Your task to perform on an android device: turn off smart reply in the gmail app Image 0: 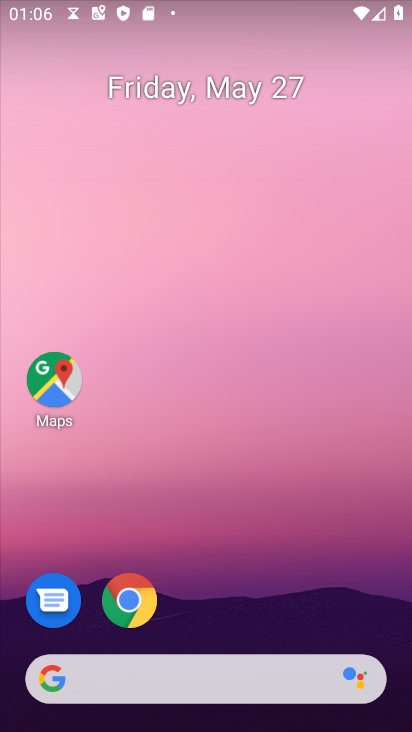
Step 0: drag from (285, 581) to (304, 245)
Your task to perform on an android device: turn off smart reply in the gmail app Image 1: 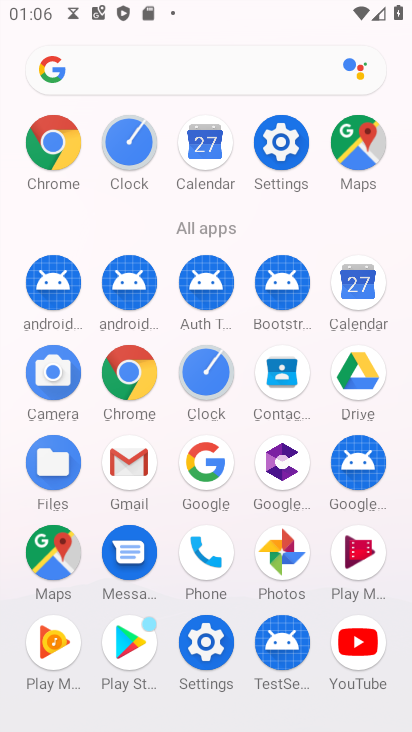
Step 1: click (143, 467)
Your task to perform on an android device: turn off smart reply in the gmail app Image 2: 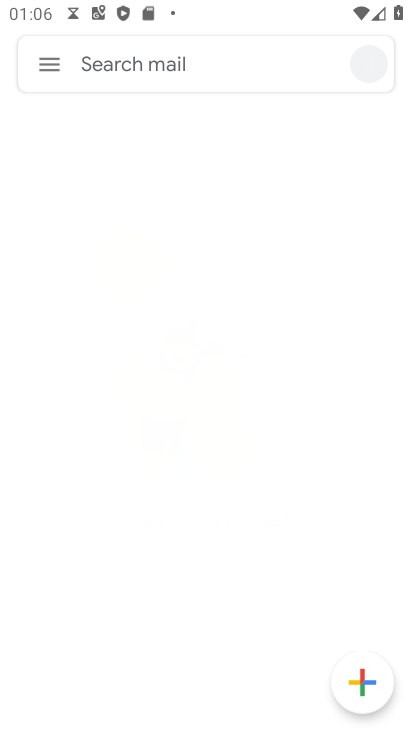
Step 2: click (54, 72)
Your task to perform on an android device: turn off smart reply in the gmail app Image 3: 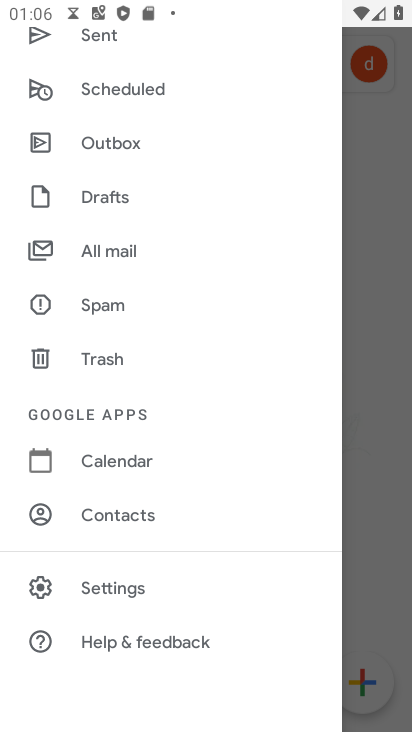
Step 3: drag from (224, 157) to (126, 507)
Your task to perform on an android device: turn off smart reply in the gmail app Image 4: 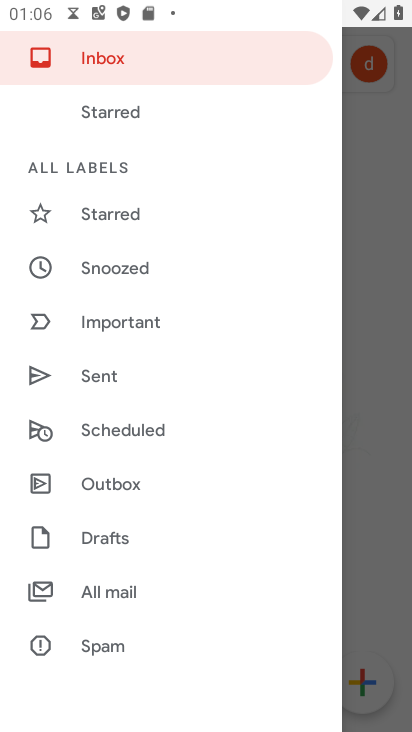
Step 4: drag from (228, 573) to (278, 210)
Your task to perform on an android device: turn off smart reply in the gmail app Image 5: 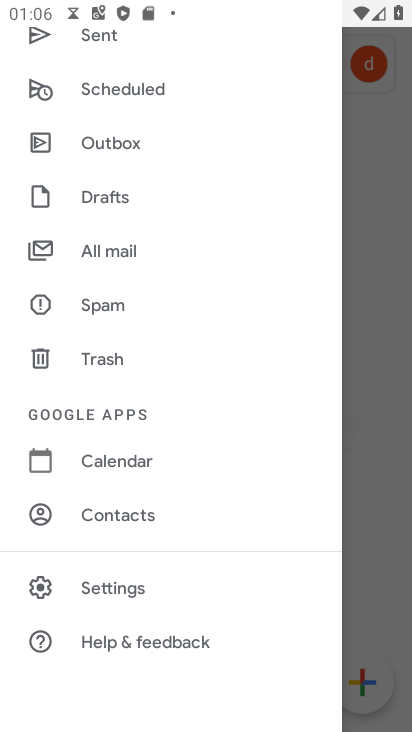
Step 5: click (97, 580)
Your task to perform on an android device: turn off smart reply in the gmail app Image 6: 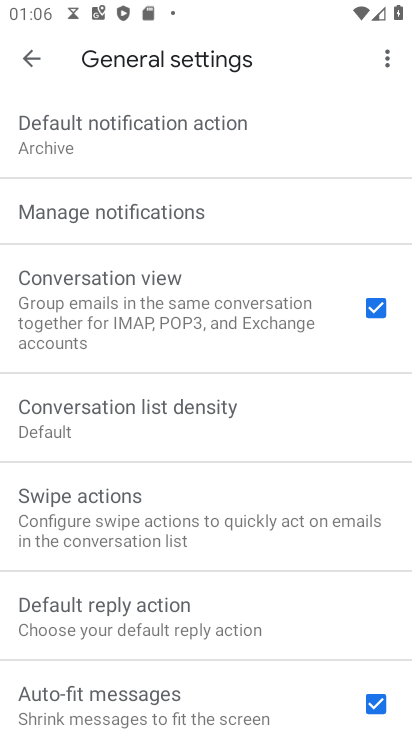
Step 6: task complete